Your task to perform on an android device: open app "Facebook" (install if not already installed) and go to login screen Image 0: 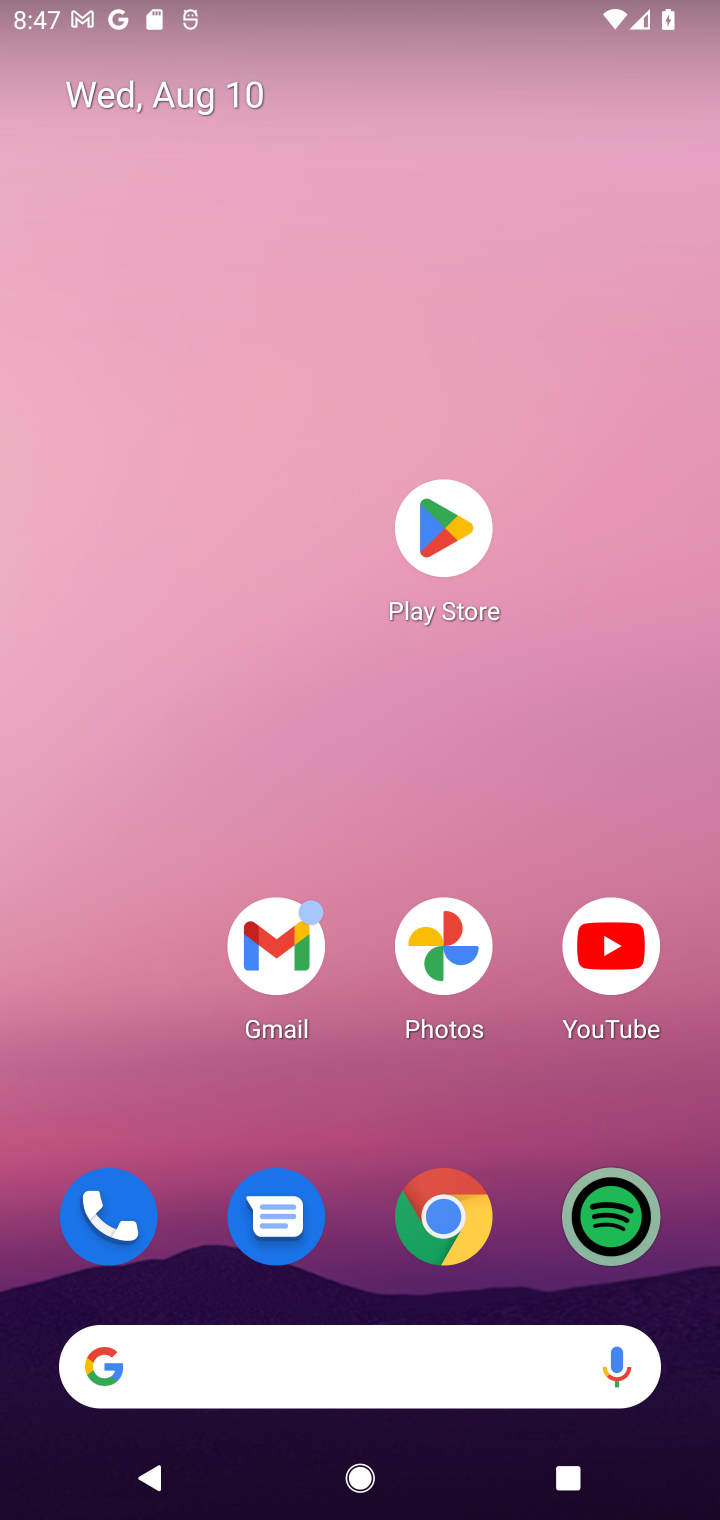
Step 0: click (453, 518)
Your task to perform on an android device: open app "Facebook" (install if not already installed) and go to login screen Image 1: 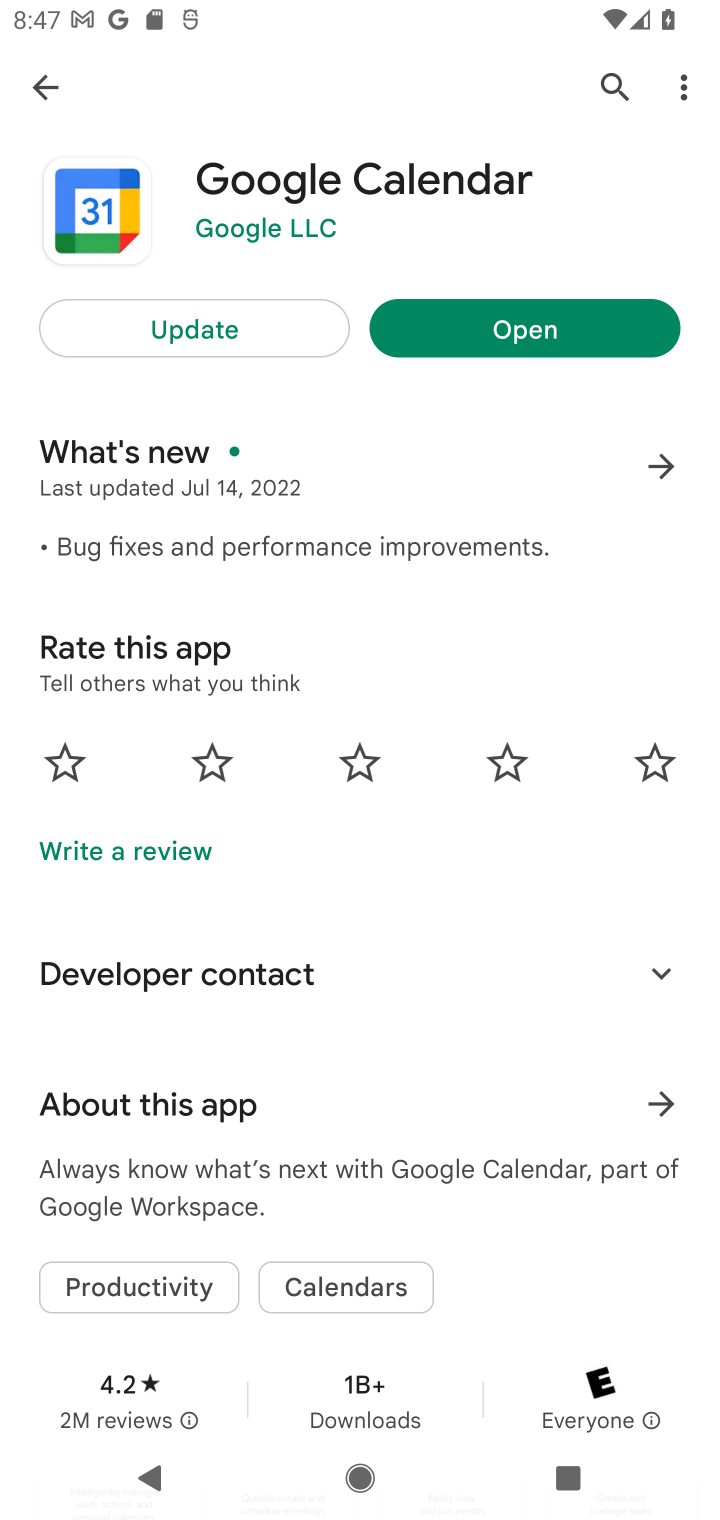
Step 1: click (608, 86)
Your task to perform on an android device: open app "Facebook" (install if not already installed) and go to login screen Image 2: 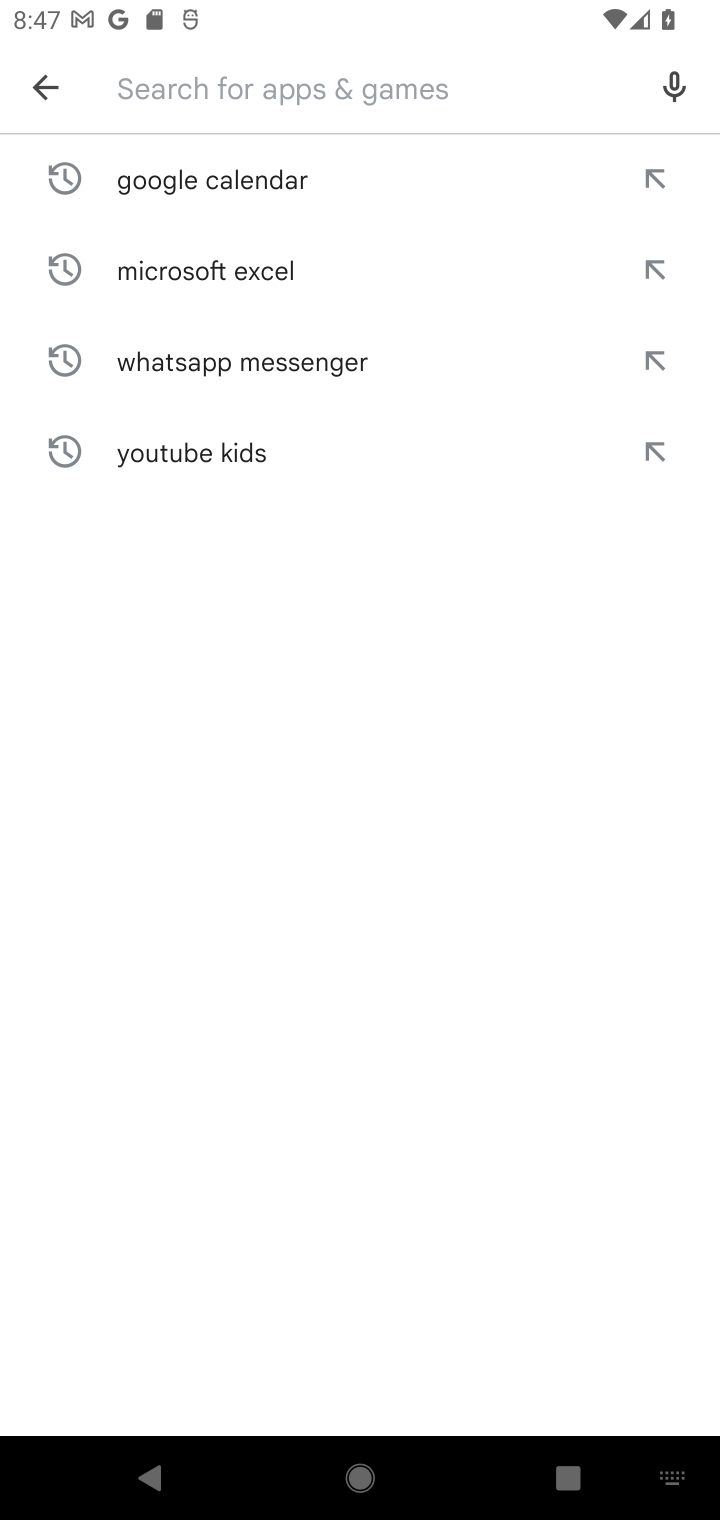
Step 2: type "Facebook"
Your task to perform on an android device: open app "Facebook" (install if not already installed) and go to login screen Image 3: 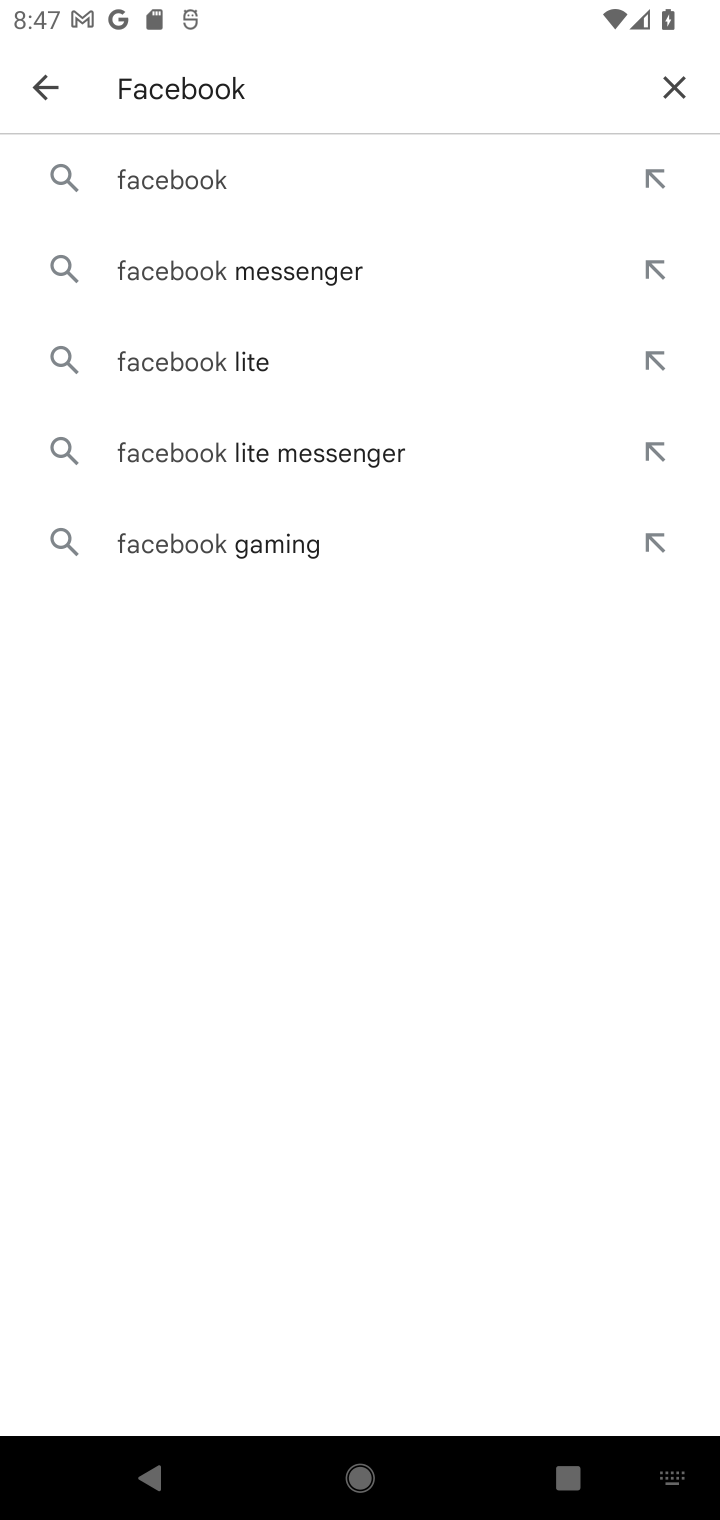
Step 3: click (213, 178)
Your task to perform on an android device: open app "Facebook" (install if not already installed) and go to login screen Image 4: 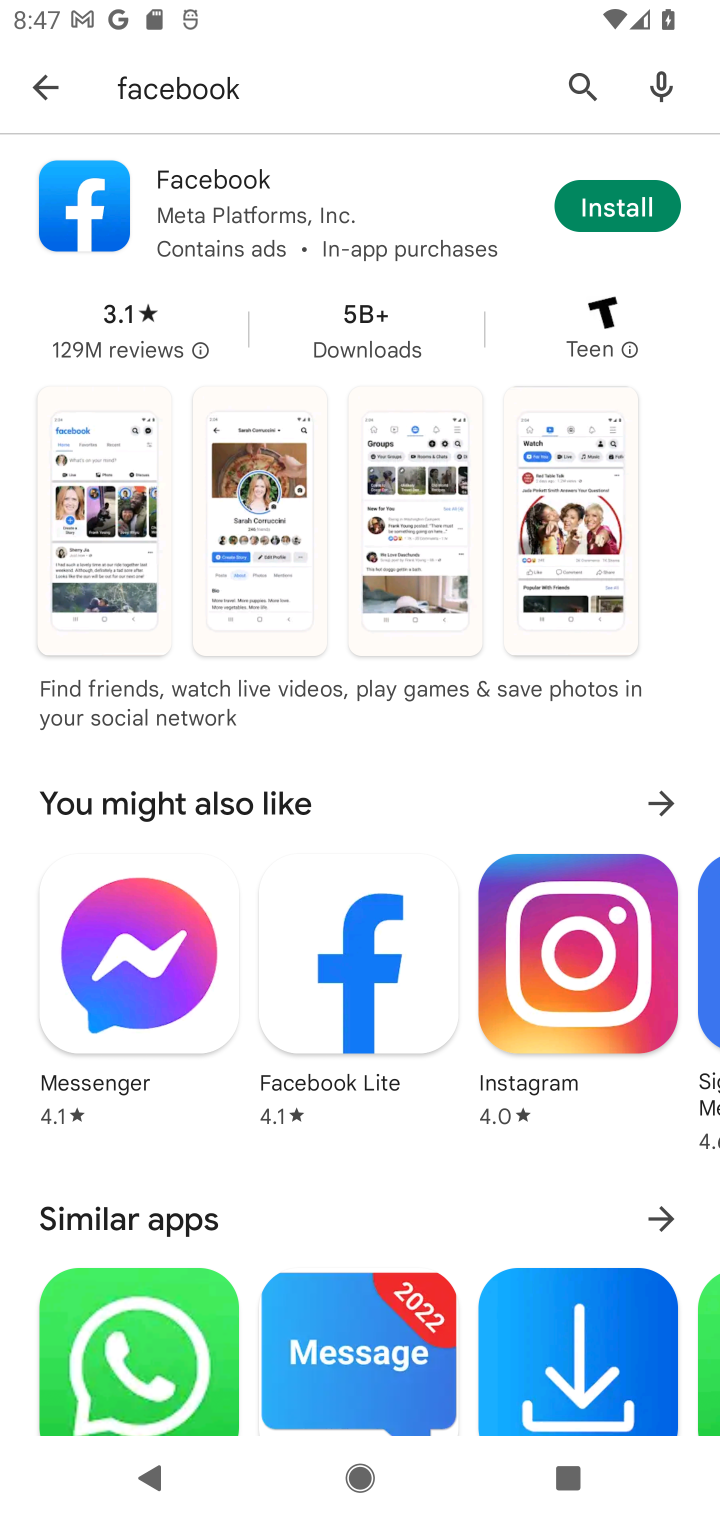
Step 4: click (600, 205)
Your task to perform on an android device: open app "Facebook" (install if not already installed) and go to login screen Image 5: 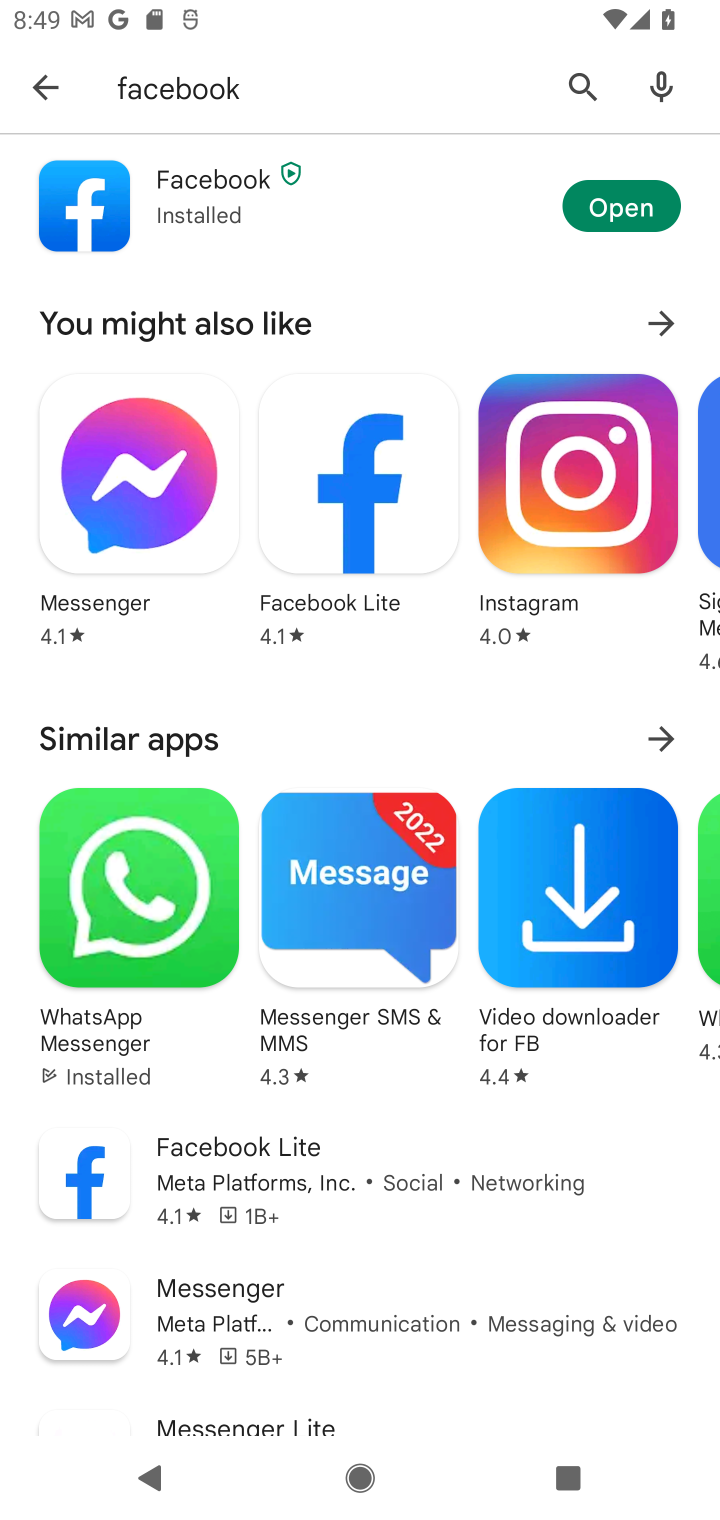
Step 5: click (600, 200)
Your task to perform on an android device: open app "Facebook" (install if not already installed) and go to login screen Image 6: 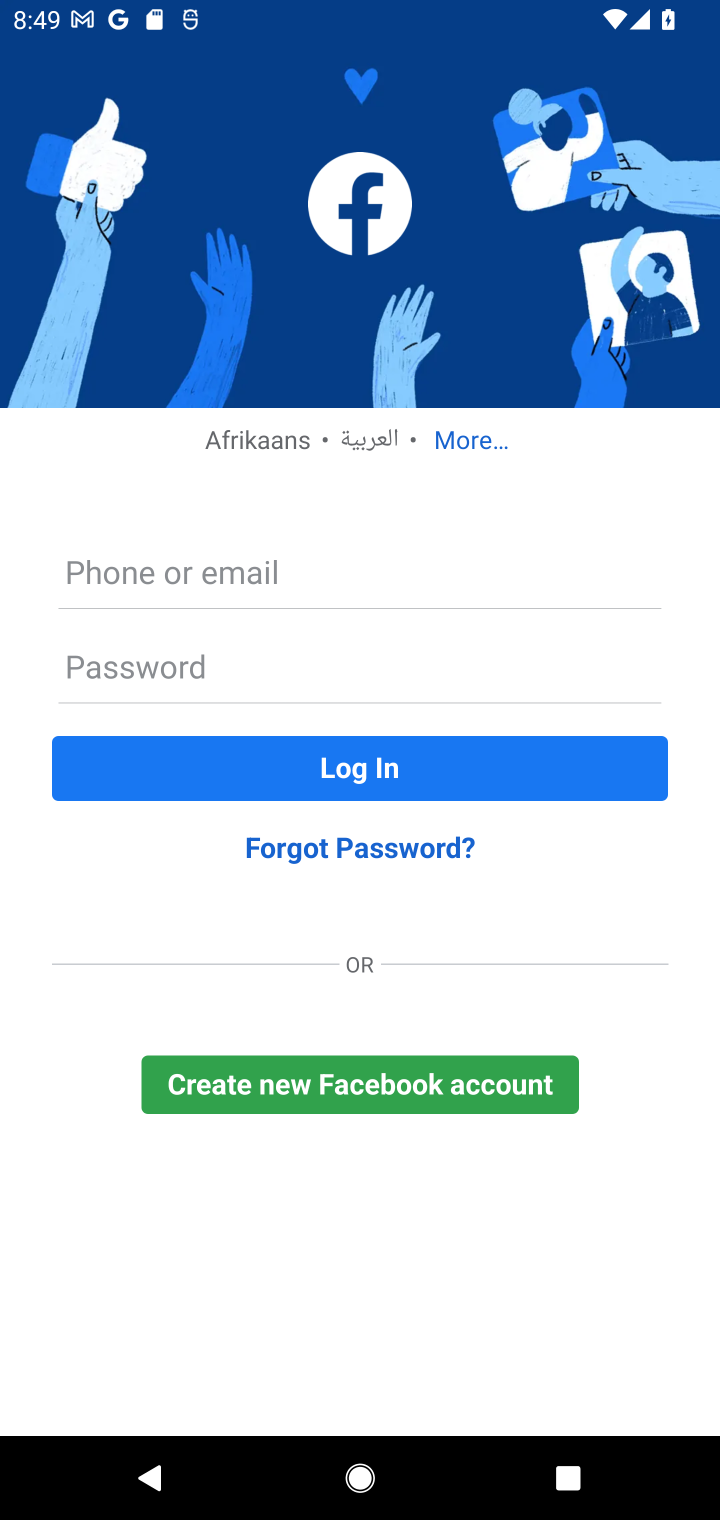
Step 6: task complete